Your task to perform on an android device: turn off improve location accuracy Image 0: 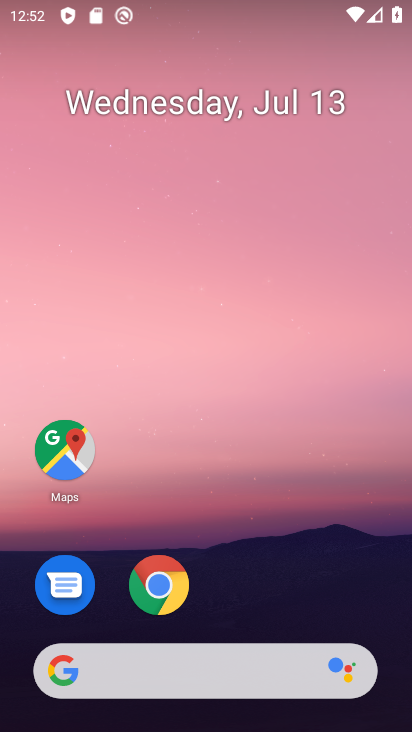
Step 0: drag from (157, 674) to (197, 111)
Your task to perform on an android device: turn off improve location accuracy Image 1: 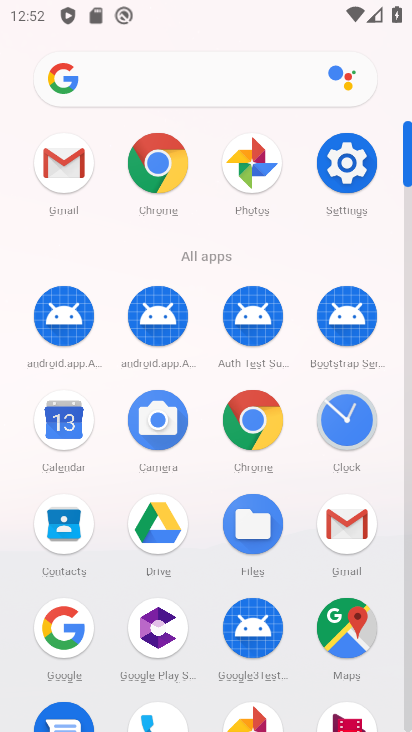
Step 1: click (354, 170)
Your task to perform on an android device: turn off improve location accuracy Image 2: 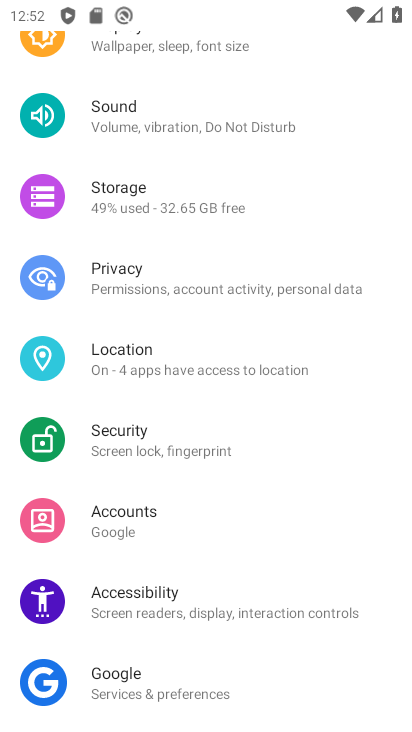
Step 2: click (162, 356)
Your task to perform on an android device: turn off improve location accuracy Image 3: 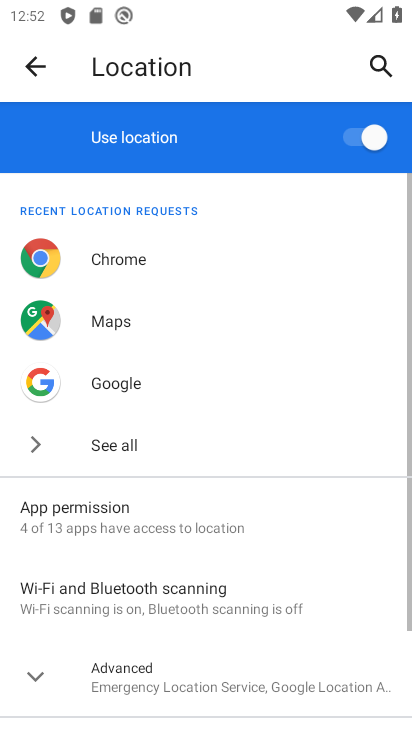
Step 3: drag from (173, 591) to (257, 197)
Your task to perform on an android device: turn off improve location accuracy Image 4: 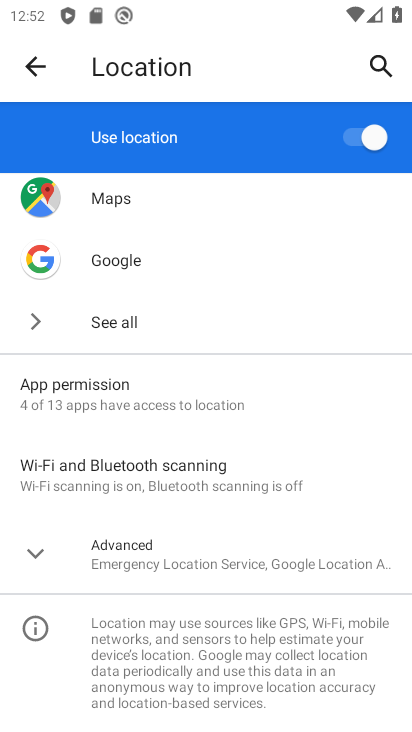
Step 4: click (127, 555)
Your task to perform on an android device: turn off improve location accuracy Image 5: 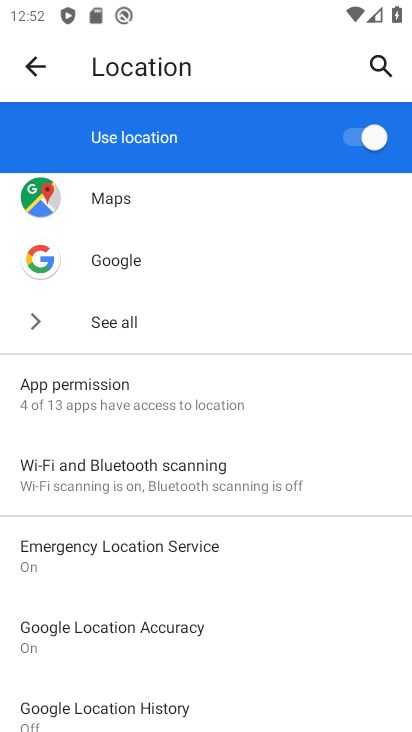
Step 5: click (142, 630)
Your task to perform on an android device: turn off improve location accuracy Image 6: 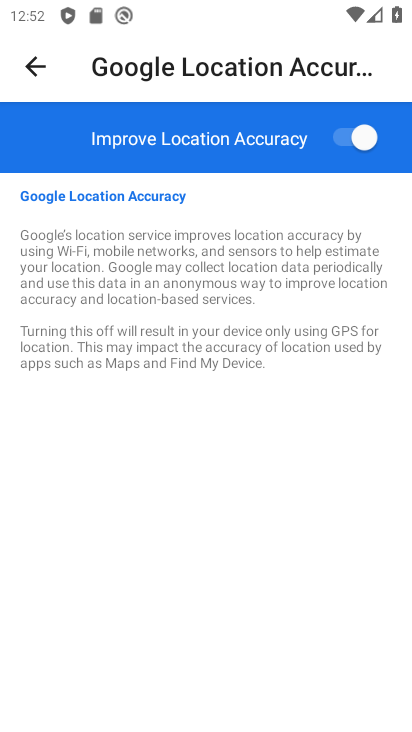
Step 6: click (346, 133)
Your task to perform on an android device: turn off improve location accuracy Image 7: 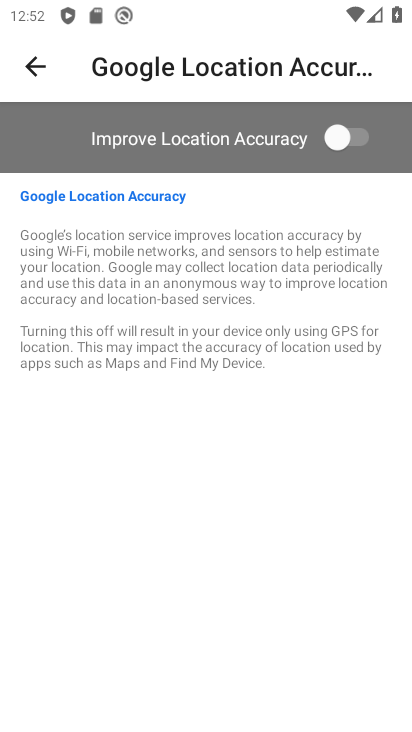
Step 7: task complete